Your task to perform on an android device: Clear the cart on costco. Add "jbl flip 4" to the cart on costco, then select checkout. Image 0: 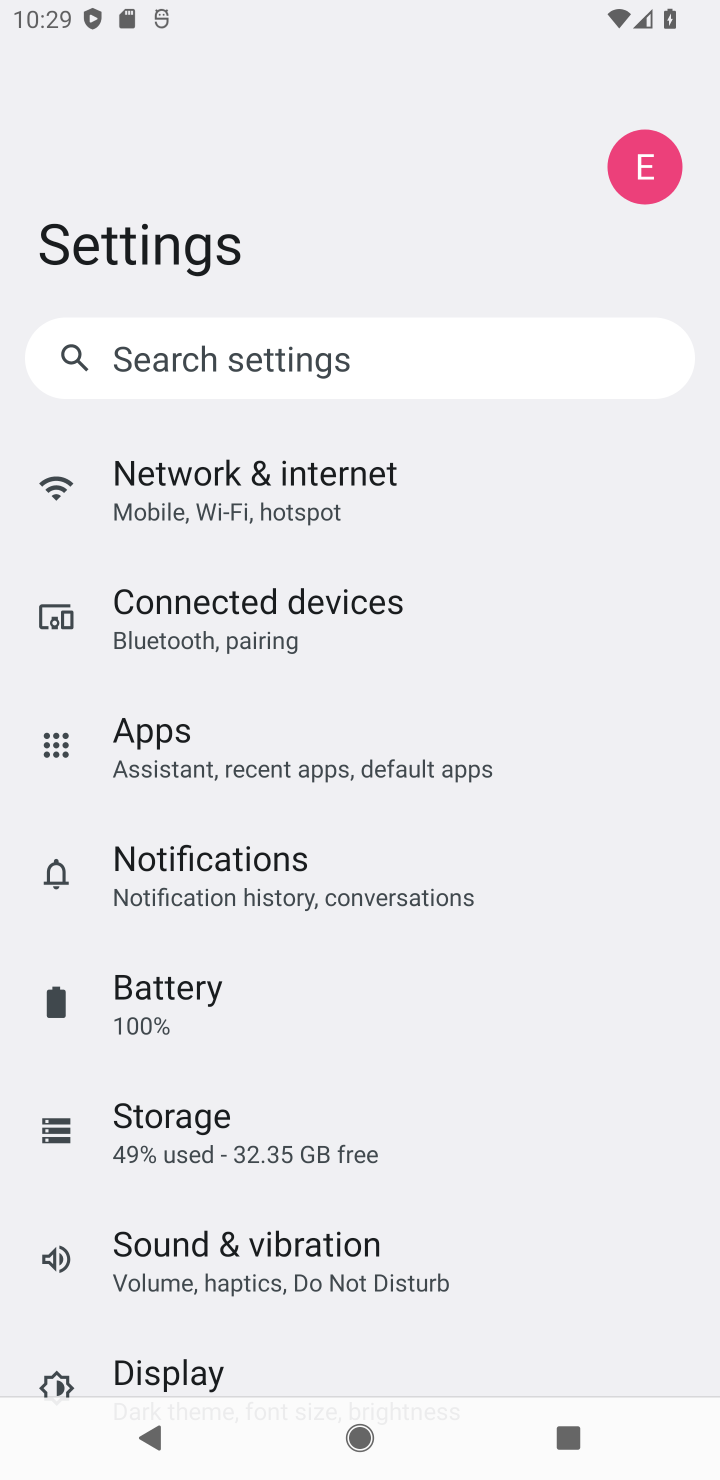
Step 0: press home button
Your task to perform on an android device: Clear the cart on costco. Add "jbl flip 4" to the cart on costco, then select checkout. Image 1: 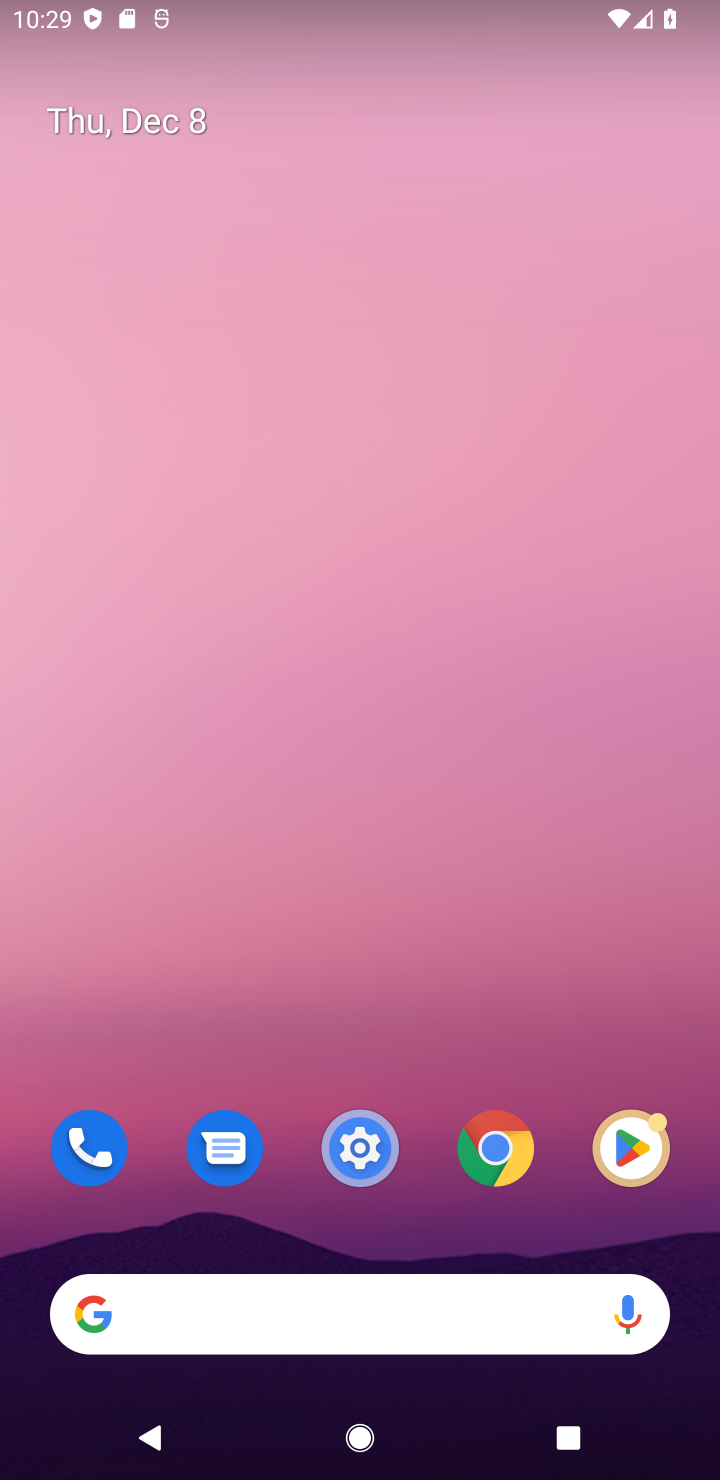
Step 1: click (340, 1302)
Your task to perform on an android device: Clear the cart on costco. Add "jbl flip 4" to the cart on costco, then select checkout. Image 2: 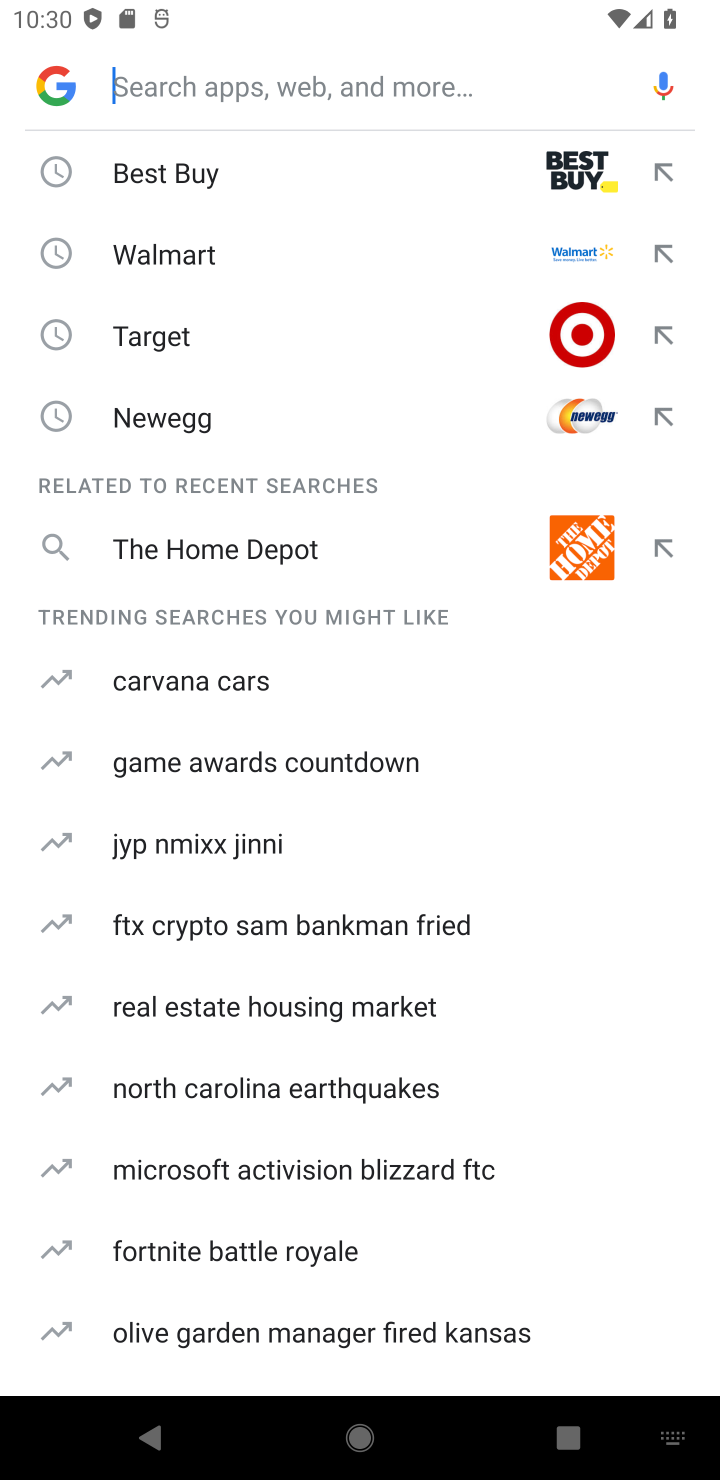
Step 2: type "costco"
Your task to perform on an android device: Clear the cart on costco. Add "jbl flip 4" to the cart on costco, then select checkout. Image 3: 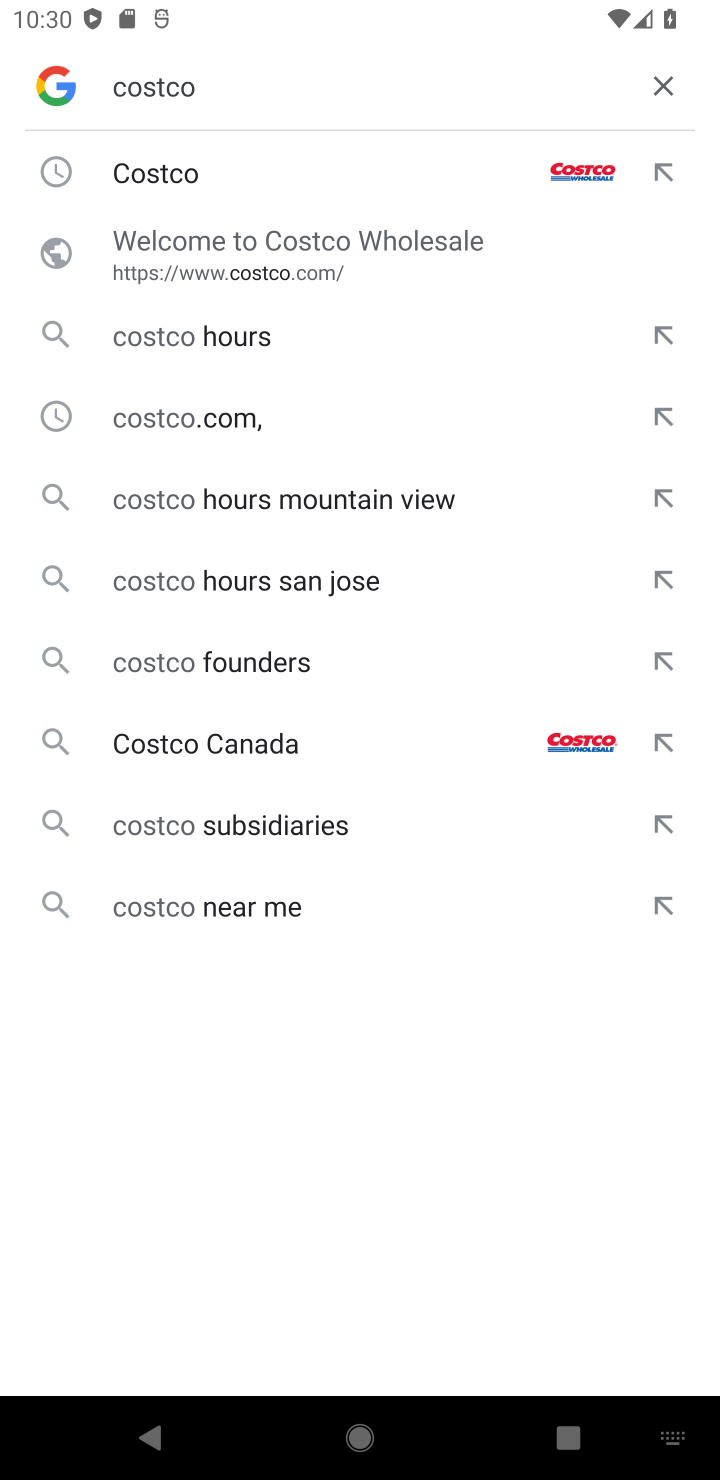
Step 3: click (185, 164)
Your task to perform on an android device: Clear the cart on costco. Add "jbl flip 4" to the cart on costco, then select checkout. Image 4: 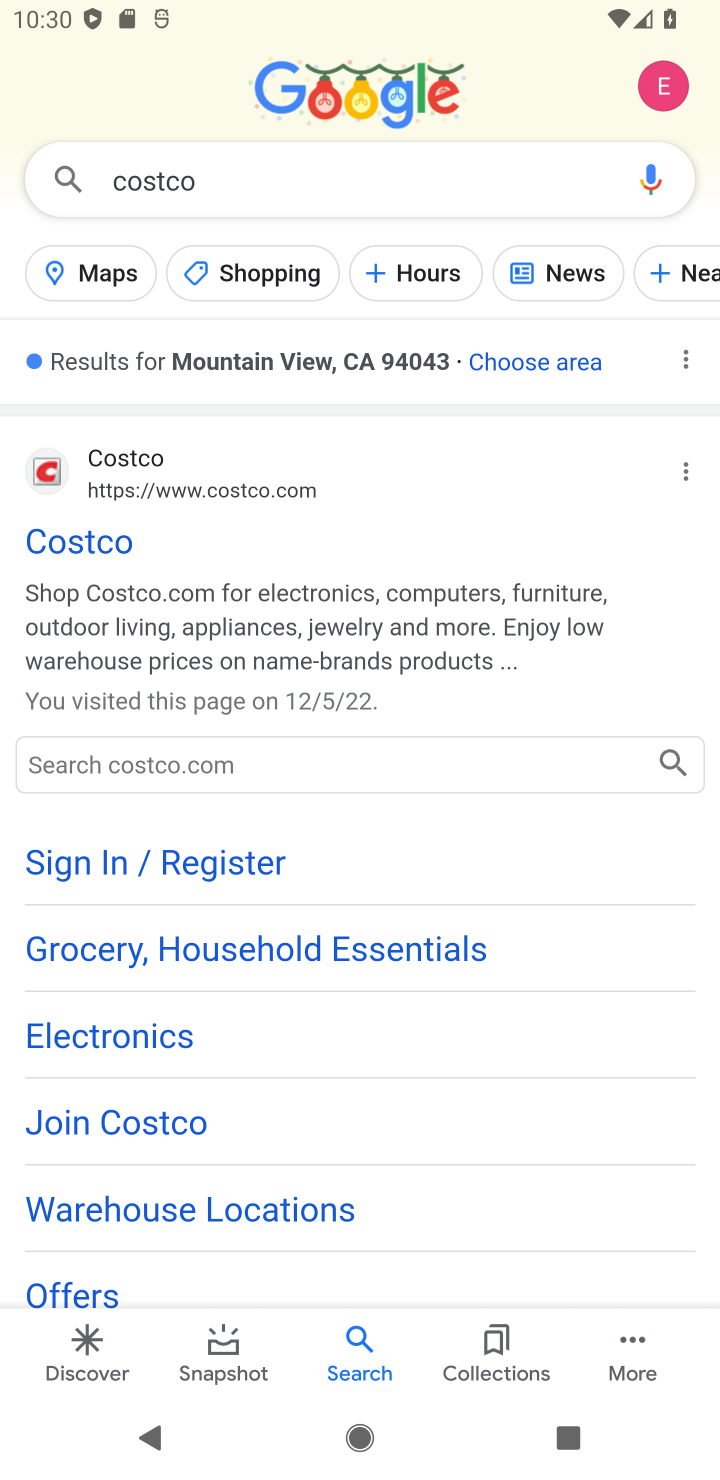
Step 4: click (102, 529)
Your task to perform on an android device: Clear the cart on costco. Add "jbl flip 4" to the cart on costco, then select checkout. Image 5: 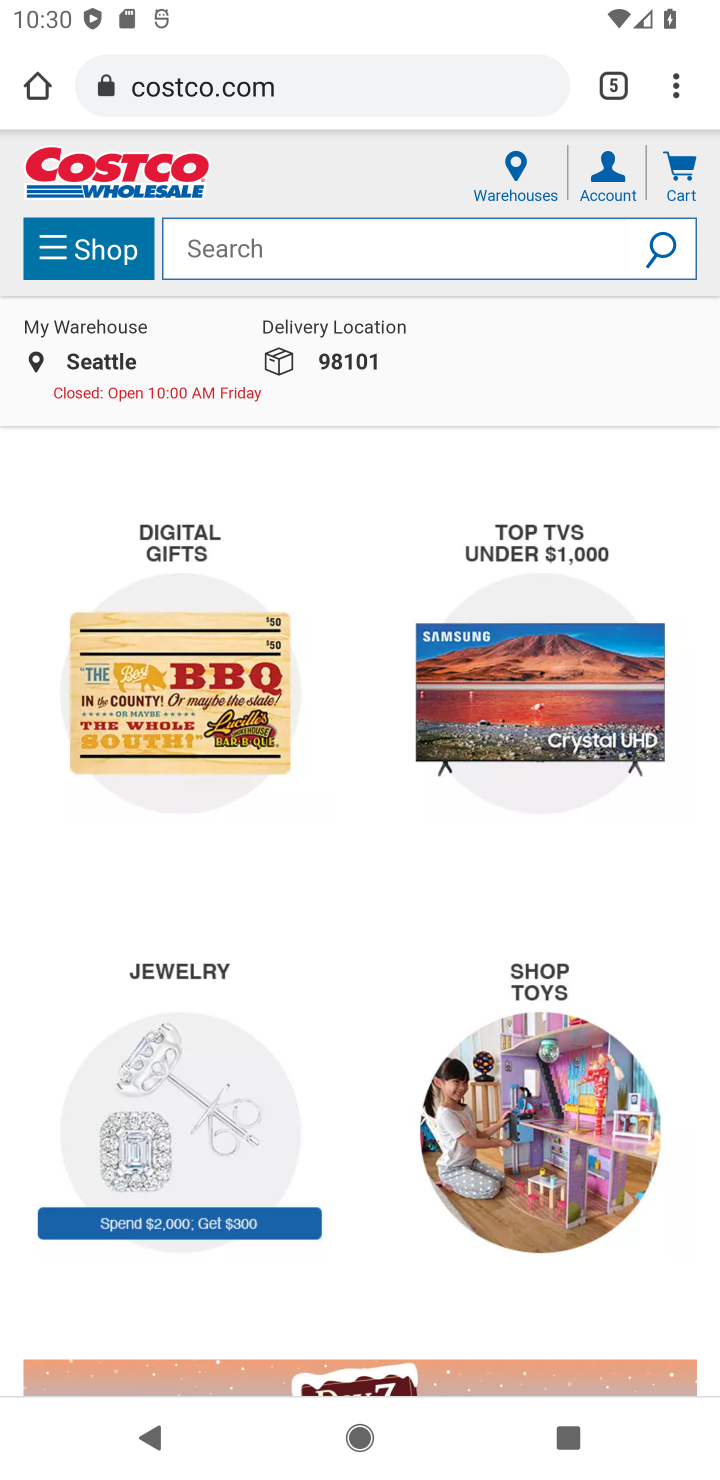
Step 5: click (300, 247)
Your task to perform on an android device: Clear the cart on costco. Add "jbl flip 4" to the cart on costco, then select checkout. Image 6: 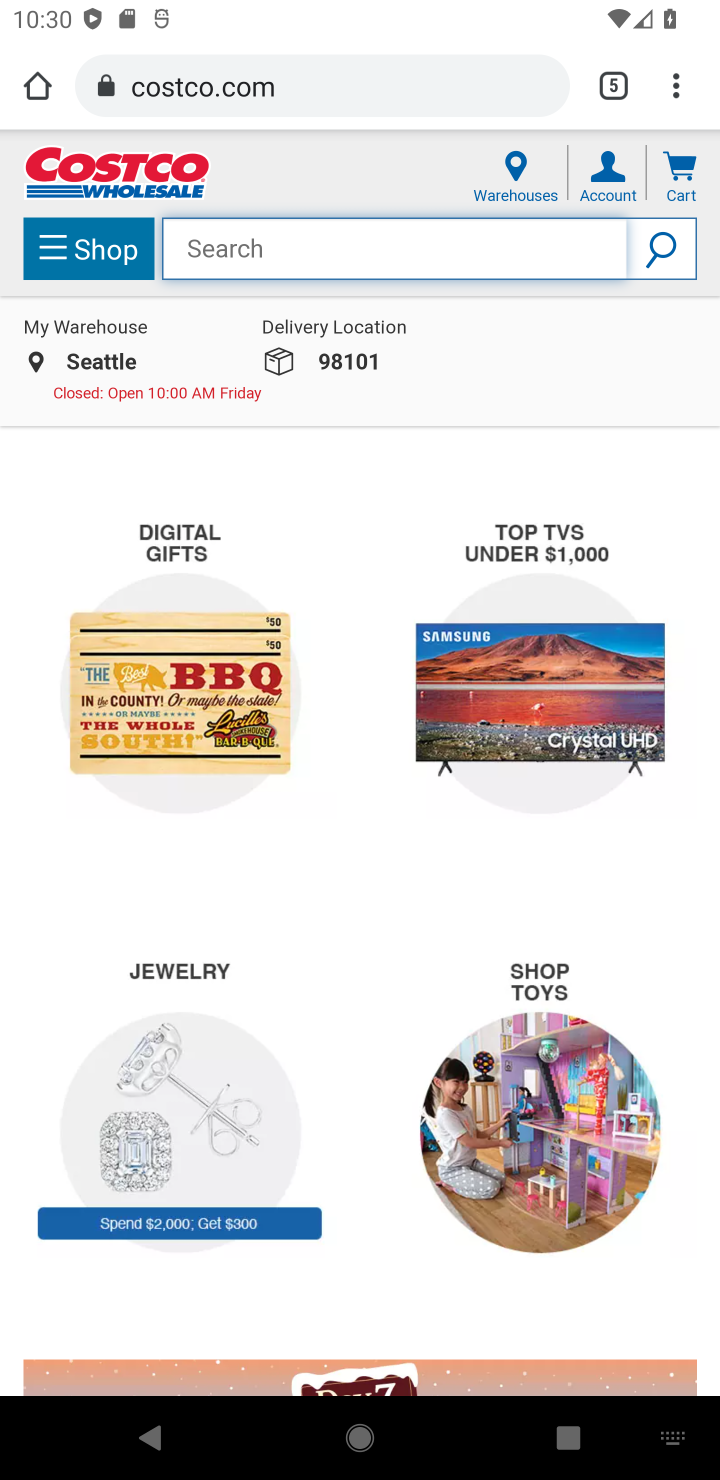
Step 6: click (685, 152)
Your task to perform on an android device: Clear the cart on costco. Add "jbl flip 4" to the cart on costco, then select checkout. Image 7: 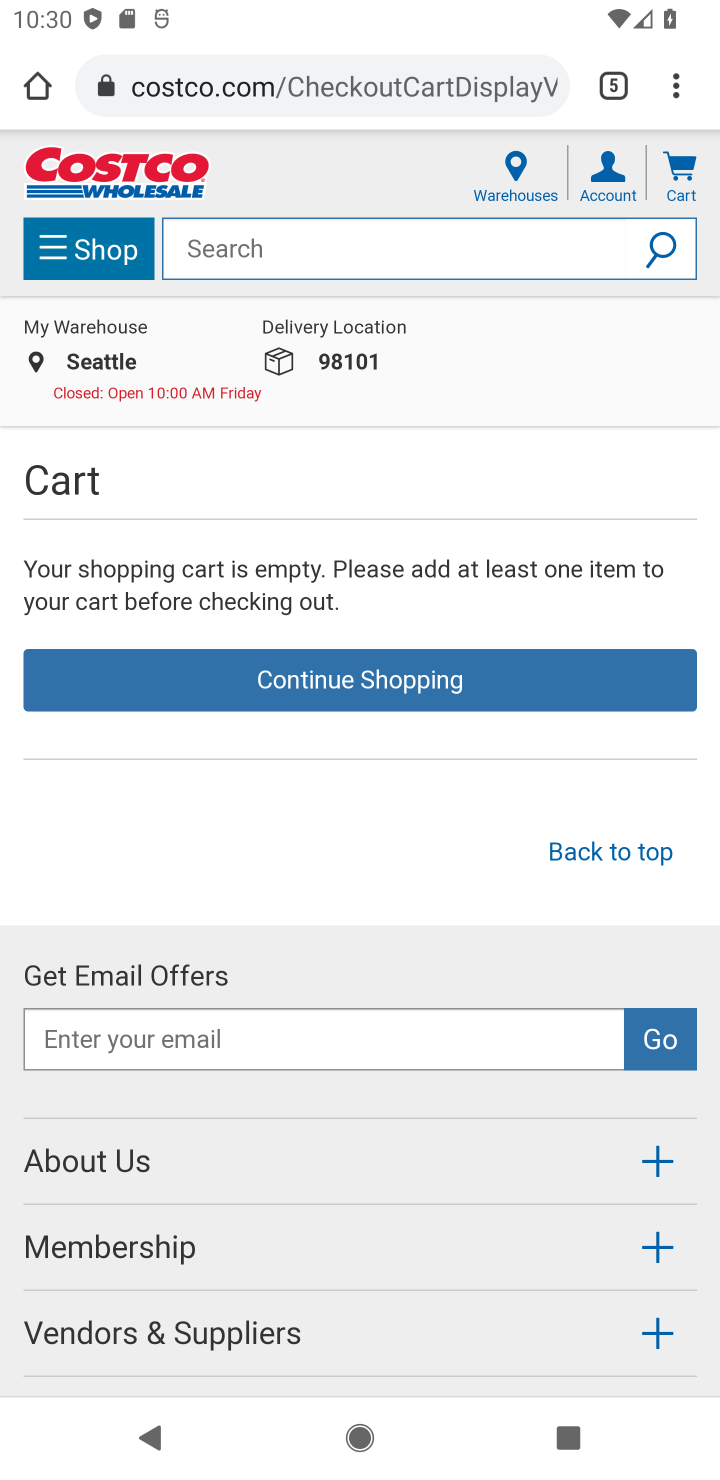
Step 7: click (261, 254)
Your task to perform on an android device: Clear the cart on costco. Add "jbl flip 4" to the cart on costco, then select checkout. Image 8: 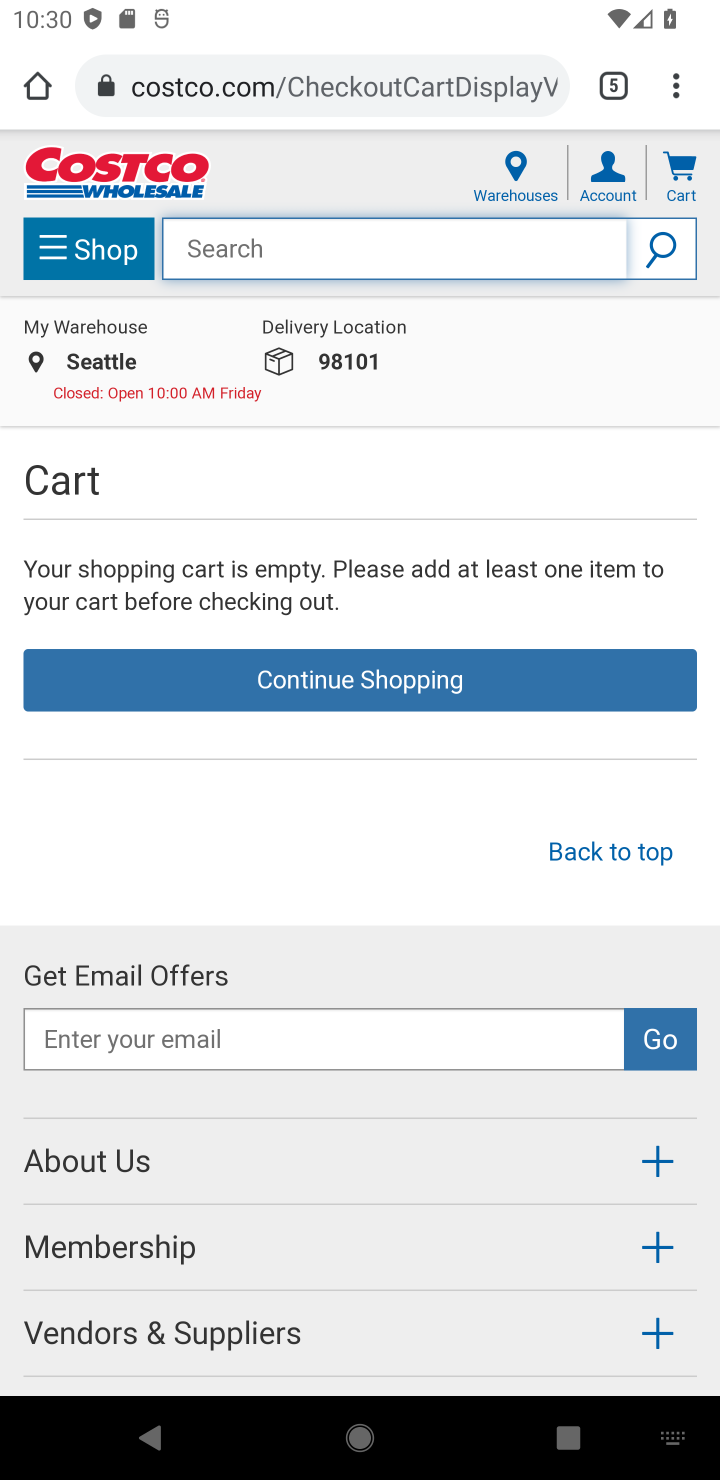
Step 8: type "jbl flip 4"
Your task to perform on an android device: Clear the cart on costco. Add "jbl flip 4" to the cart on costco, then select checkout. Image 9: 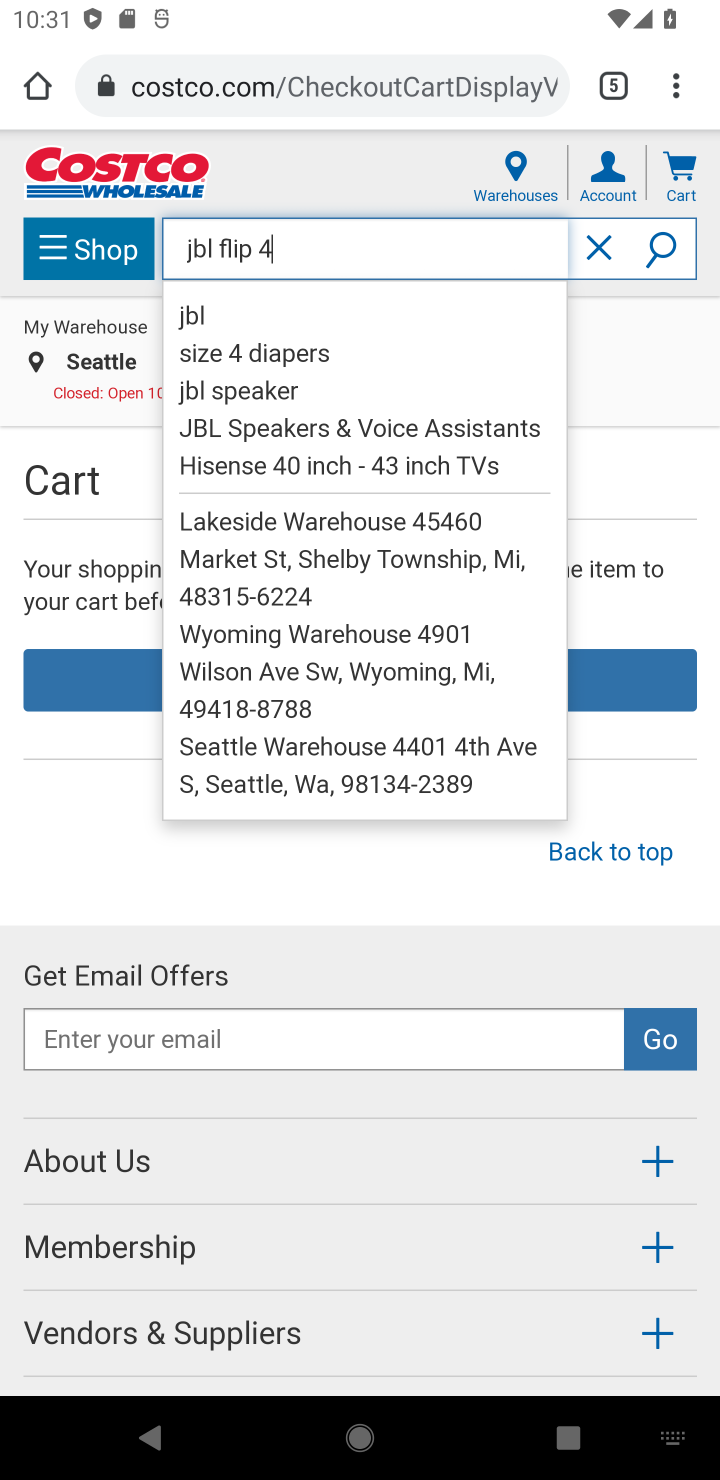
Step 9: click (655, 241)
Your task to perform on an android device: Clear the cart on costco. Add "jbl flip 4" to the cart on costco, then select checkout. Image 10: 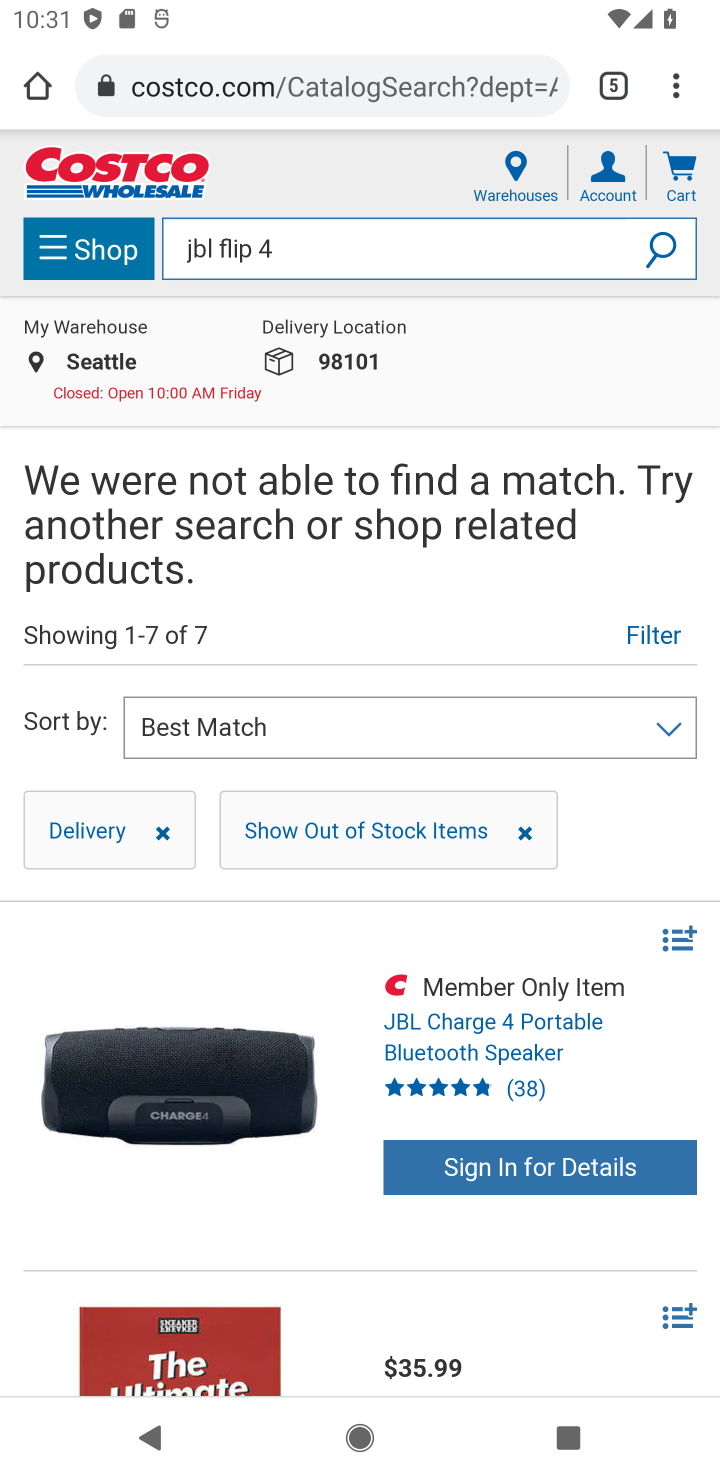
Step 10: task complete